Your task to perform on an android device: Is it going to rain this weekend? Image 0: 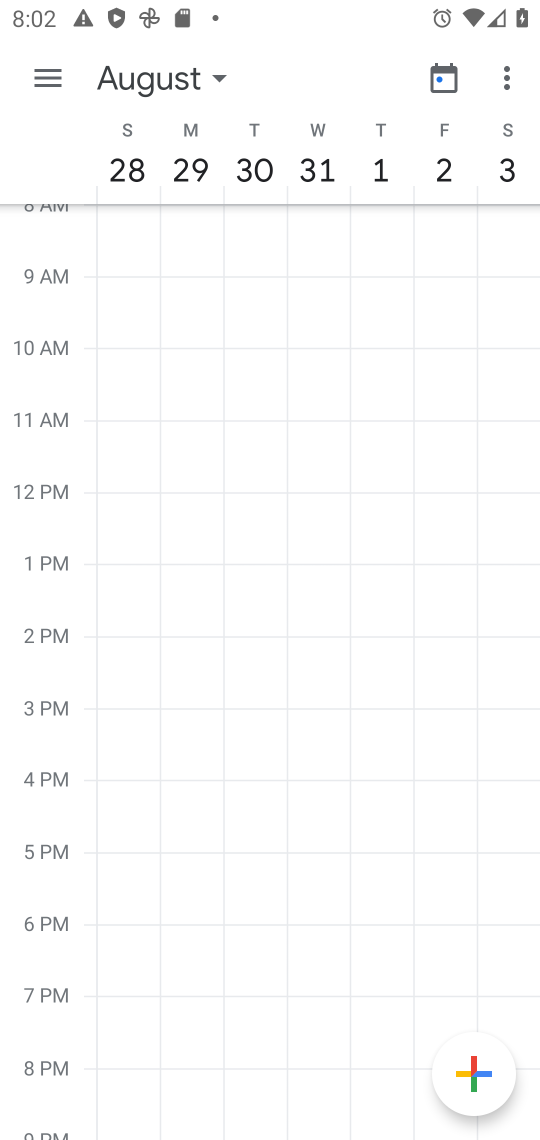
Step 0: press home button
Your task to perform on an android device: Is it going to rain this weekend? Image 1: 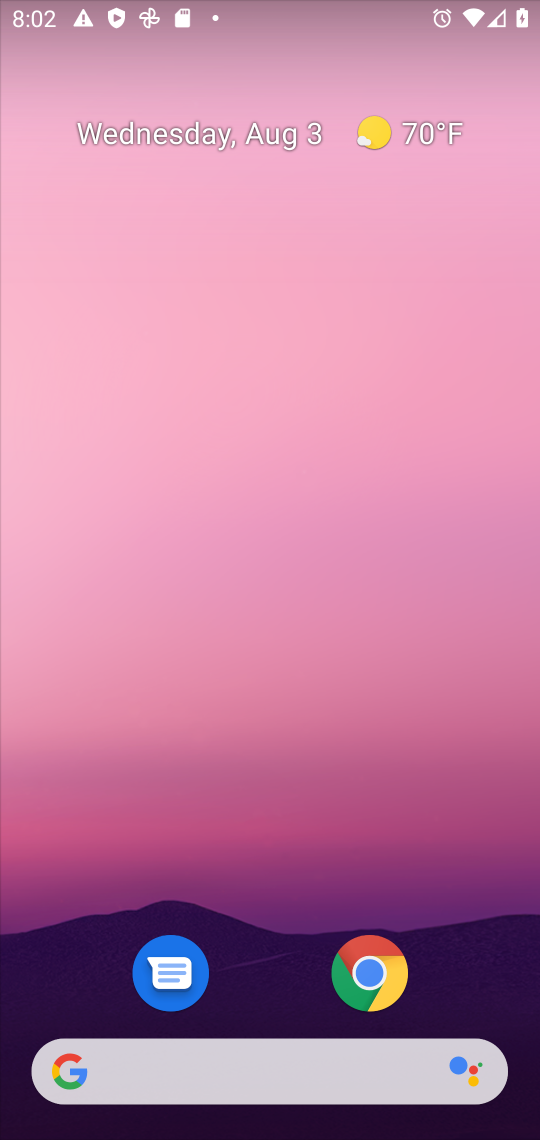
Step 1: drag from (242, 891) to (429, 74)
Your task to perform on an android device: Is it going to rain this weekend? Image 2: 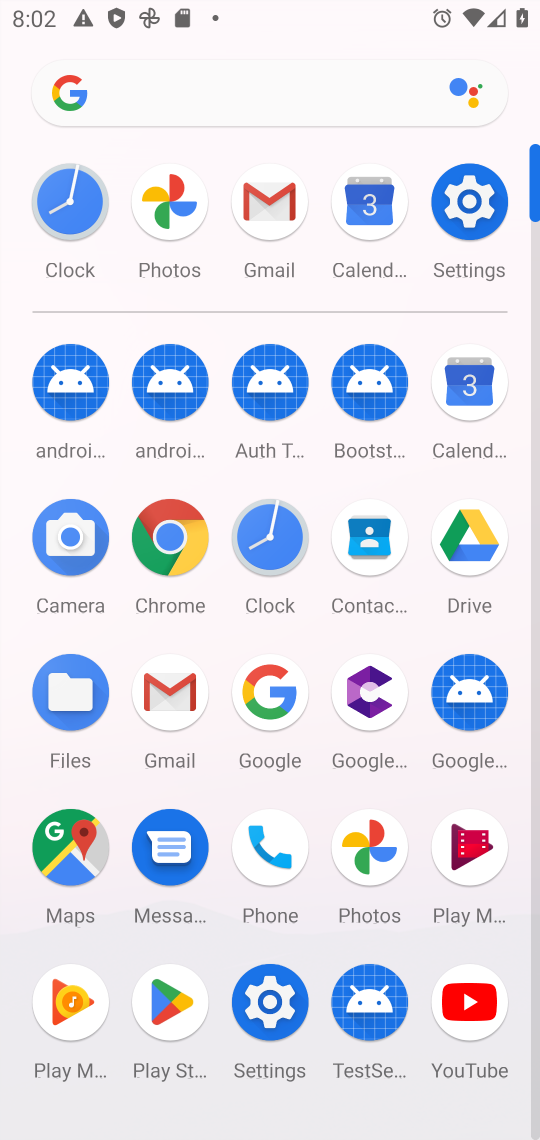
Step 2: click (266, 688)
Your task to perform on an android device: Is it going to rain this weekend? Image 3: 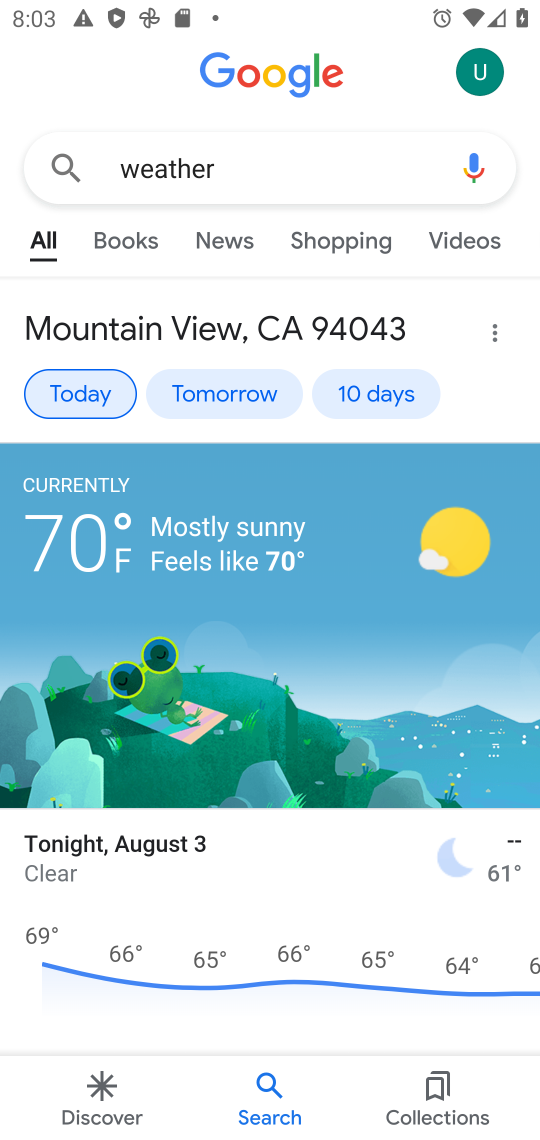
Step 3: click (374, 391)
Your task to perform on an android device: Is it going to rain this weekend? Image 4: 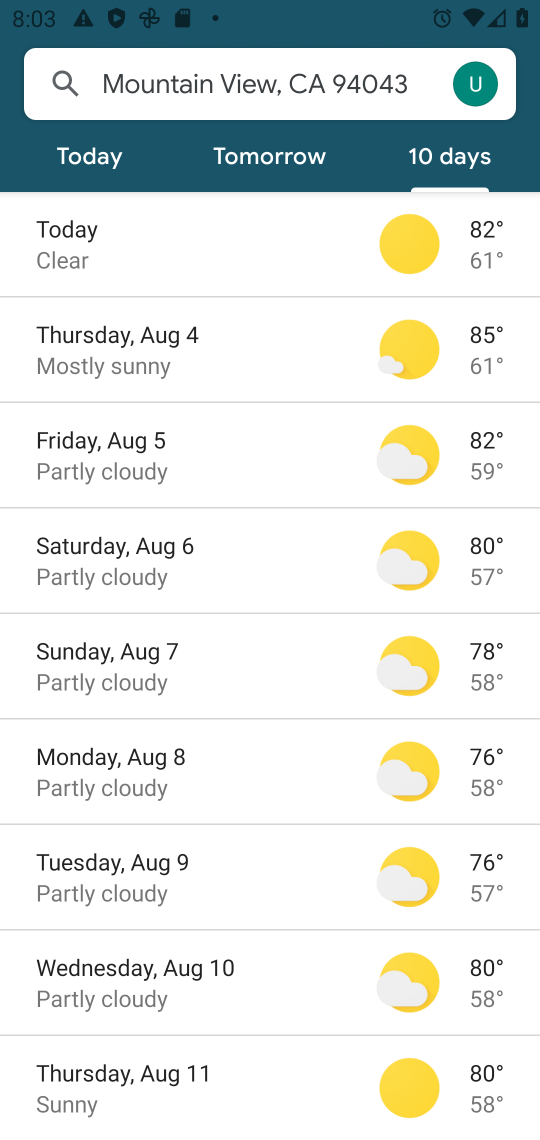
Step 4: task complete